Your task to perform on an android device: turn notification dots off Image 0: 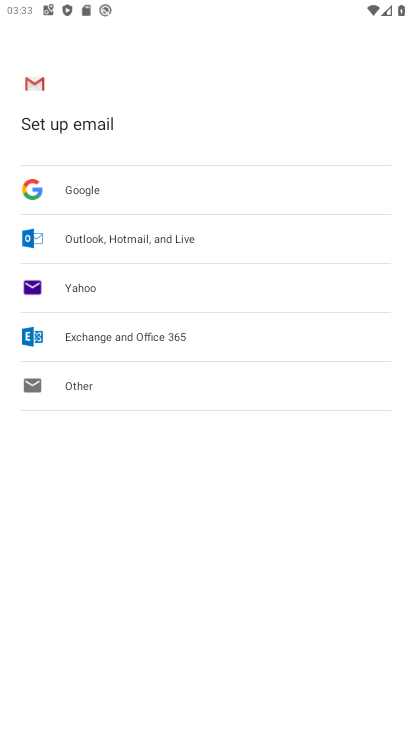
Step 0: press home button
Your task to perform on an android device: turn notification dots off Image 1: 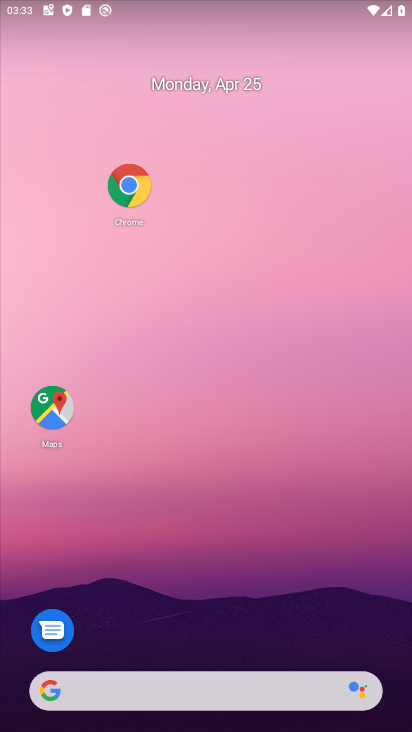
Step 1: drag from (137, 642) to (155, 95)
Your task to perform on an android device: turn notification dots off Image 2: 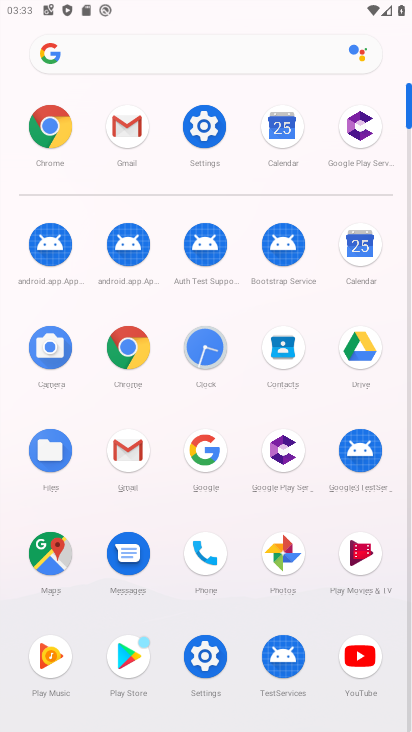
Step 2: click (48, 131)
Your task to perform on an android device: turn notification dots off Image 3: 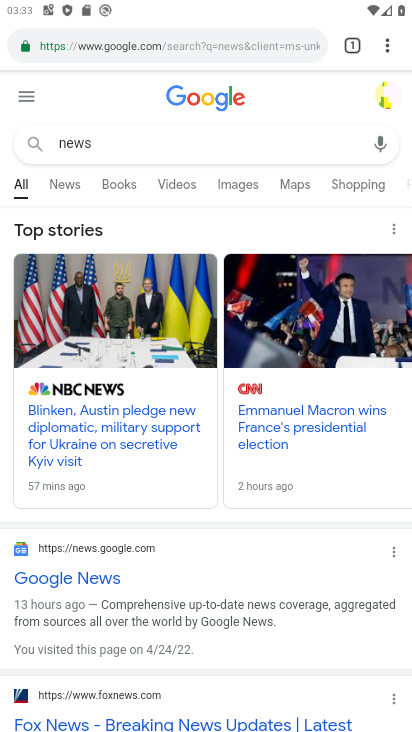
Step 3: press home button
Your task to perform on an android device: turn notification dots off Image 4: 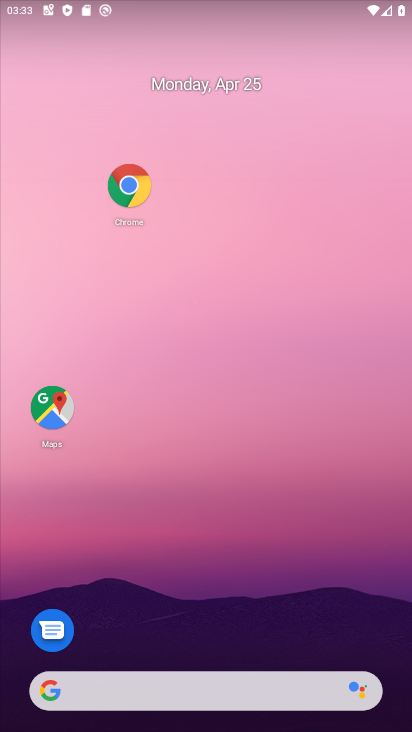
Step 4: drag from (159, 638) to (175, 156)
Your task to perform on an android device: turn notification dots off Image 5: 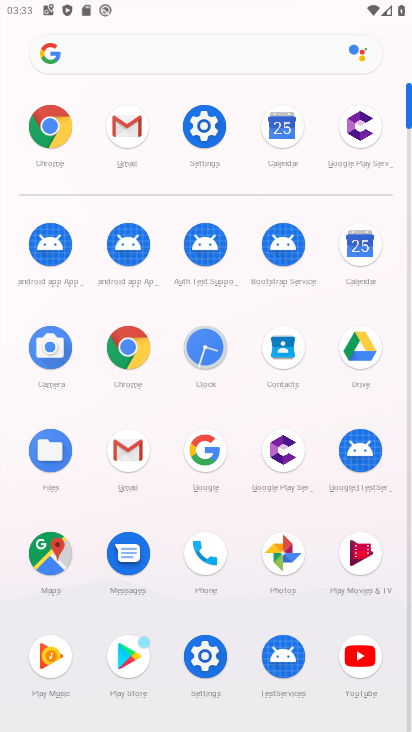
Step 5: click (209, 121)
Your task to perform on an android device: turn notification dots off Image 6: 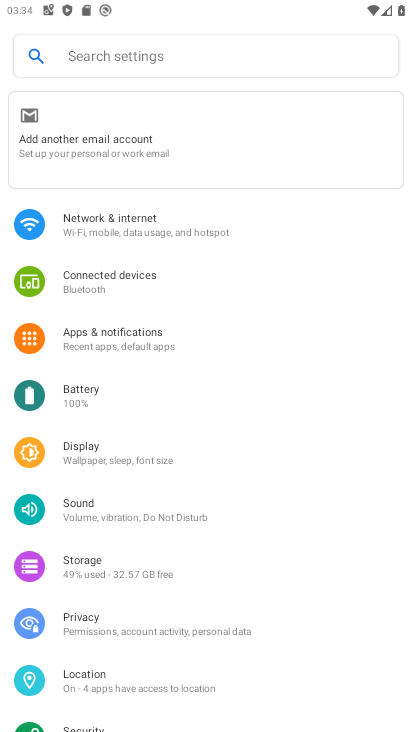
Step 6: click (124, 340)
Your task to perform on an android device: turn notification dots off Image 7: 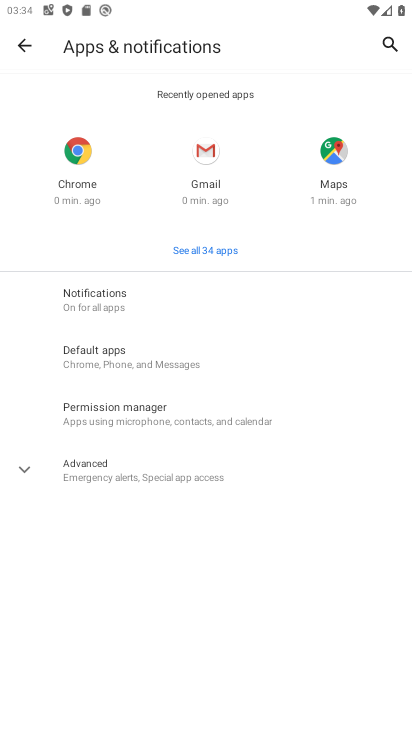
Step 7: click (109, 301)
Your task to perform on an android device: turn notification dots off Image 8: 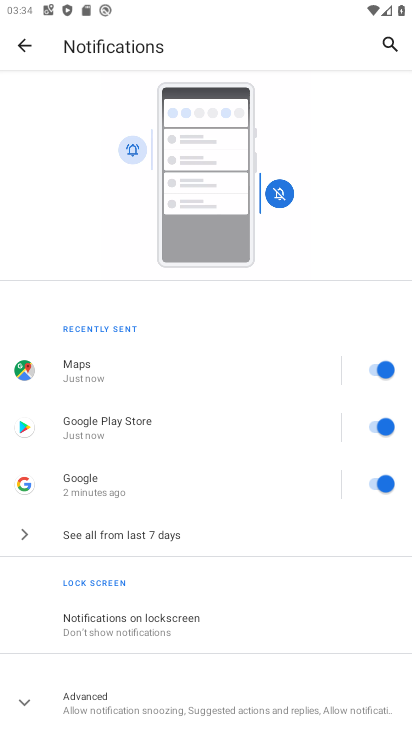
Step 8: click (98, 696)
Your task to perform on an android device: turn notification dots off Image 9: 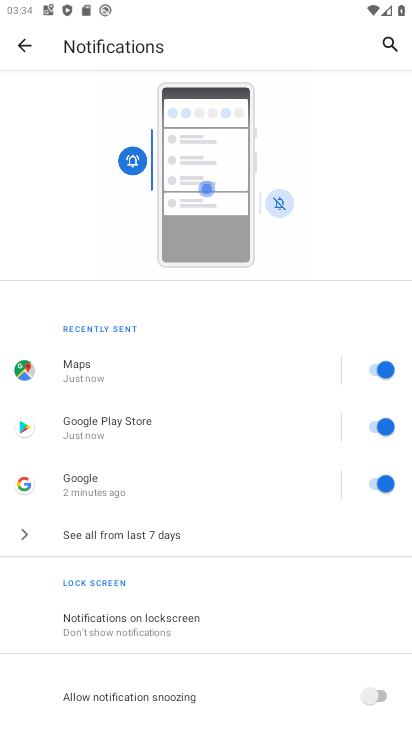
Step 9: drag from (194, 675) to (273, 309)
Your task to perform on an android device: turn notification dots off Image 10: 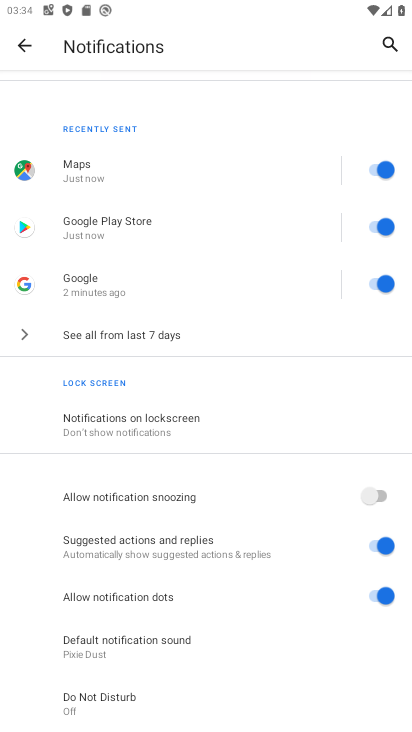
Step 10: click (377, 598)
Your task to perform on an android device: turn notification dots off Image 11: 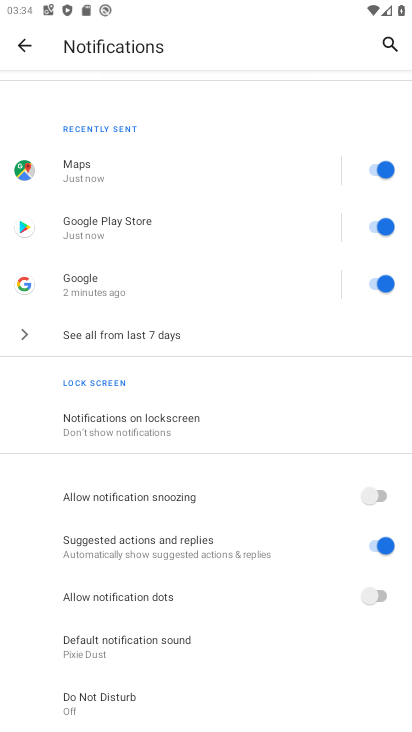
Step 11: task complete